Your task to perform on an android device: Go to settings Image 0: 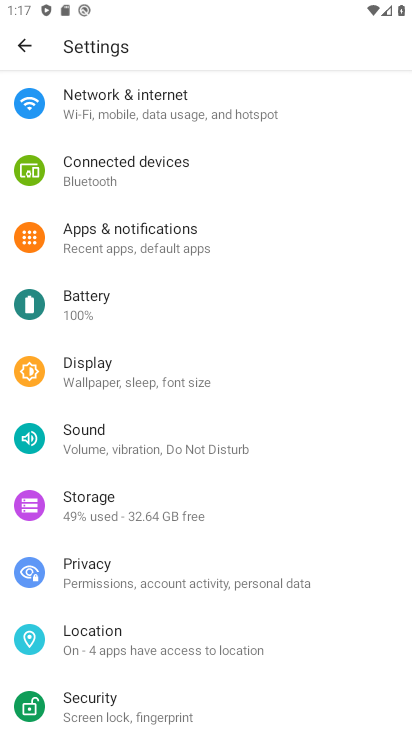
Step 0: task complete